Your task to perform on an android device: check out phone information Image 0: 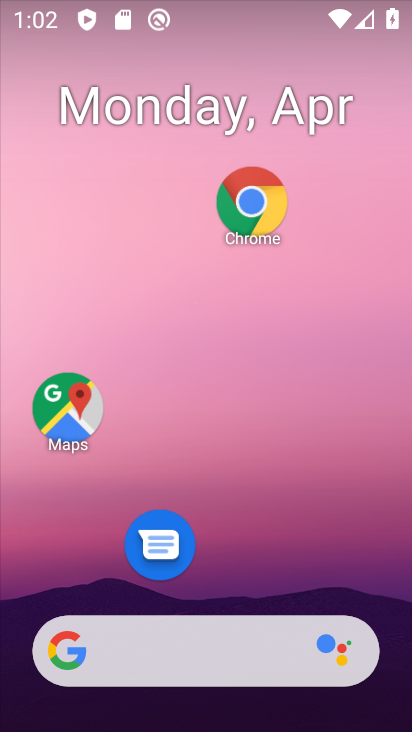
Step 0: drag from (225, 562) to (231, 84)
Your task to perform on an android device: check out phone information Image 1: 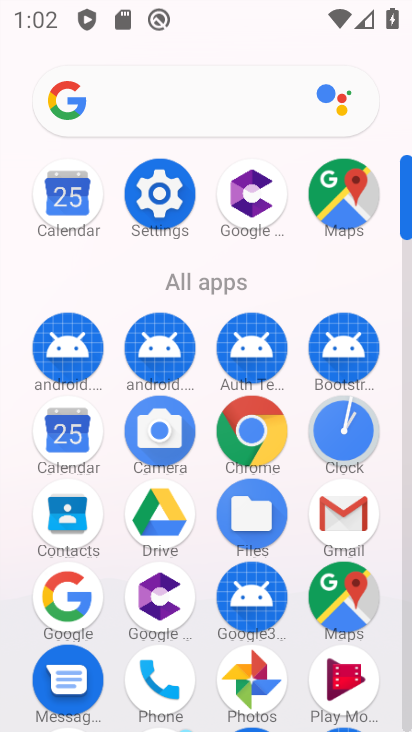
Step 1: click (156, 185)
Your task to perform on an android device: check out phone information Image 2: 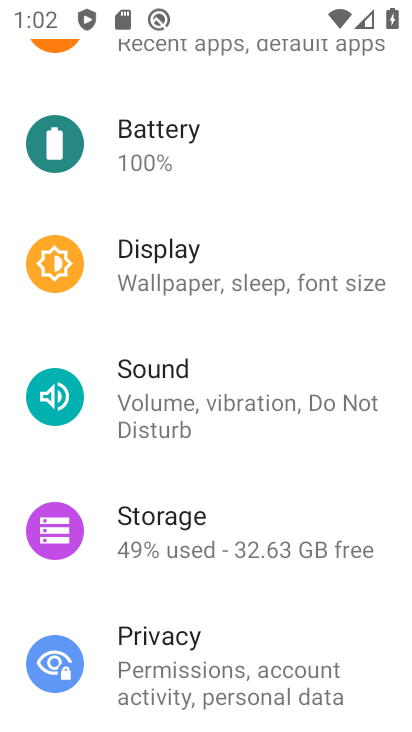
Step 2: drag from (63, 650) to (94, 108)
Your task to perform on an android device: check out phone information Image 3: 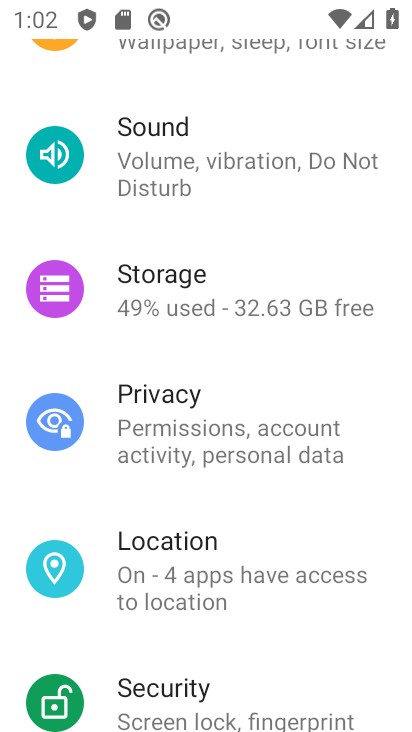
Step 3: drag from (173, 578) to (174, 81)
Your task to perform on an android device: check out phone information Image 4: 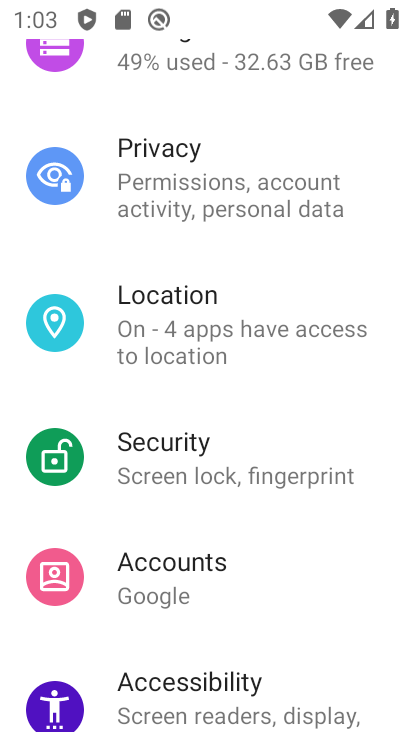
Step 4: drag from (150, 697) to (192, 332)
Your task to perform on an android device: check out phone information Image 5: 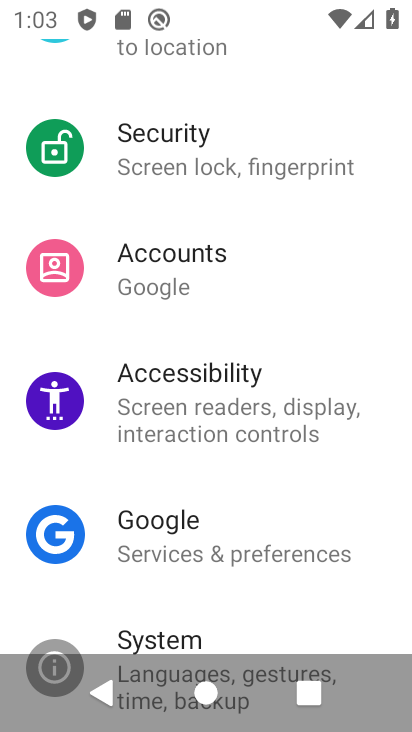
Step 5: drag from (199, 614) to (145, 189)
Your task to perform on an android device: check out phone information Image 6: 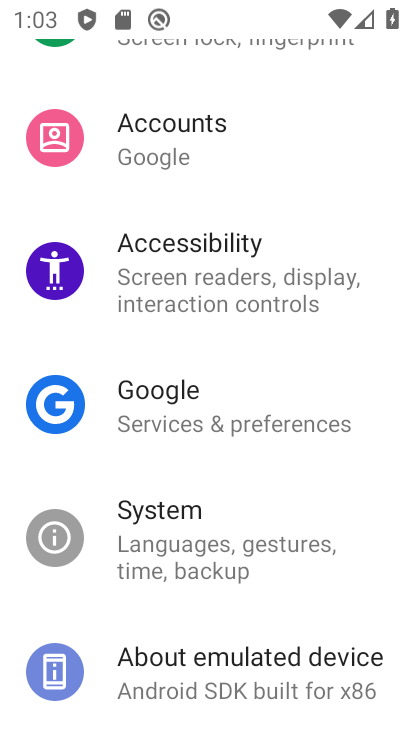
Step 6: drag from (134, 636) to (97, 295)
Your task to perform on an android device: check out phone information Image 7: 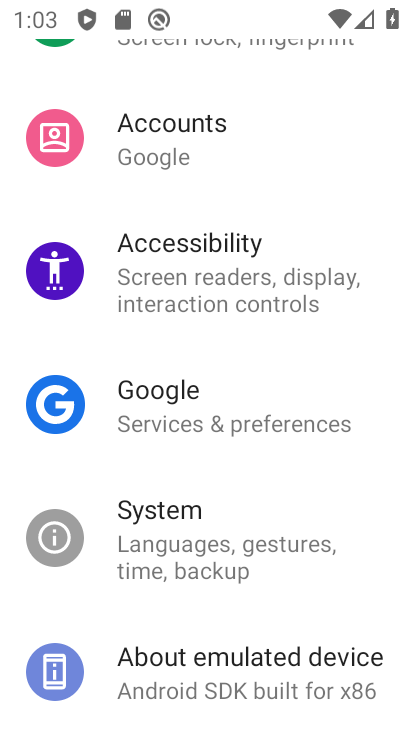
Step 7: click (179, 658)
Your task to perform on an android device: check out phone information Image 8: 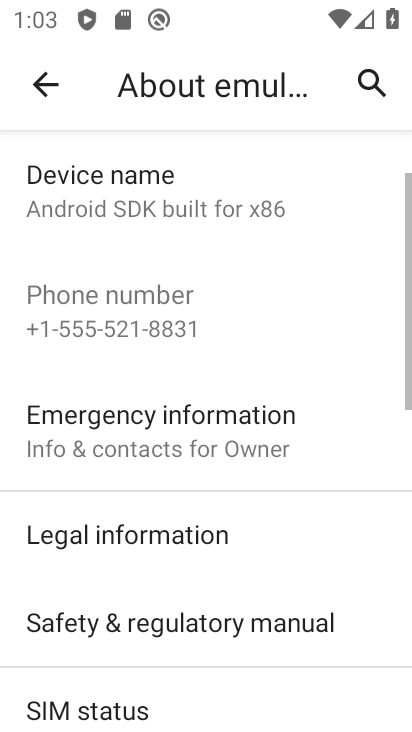
Step 8: task complete